Your task to perform on an android device: Open settings Image 0: 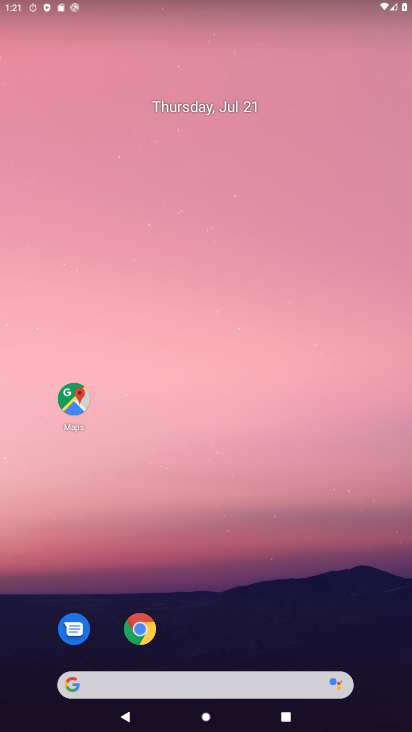
Step 0: drag from (77, 584) to (282, 47)
Your task to perform on an android device: Open settings Image 1: 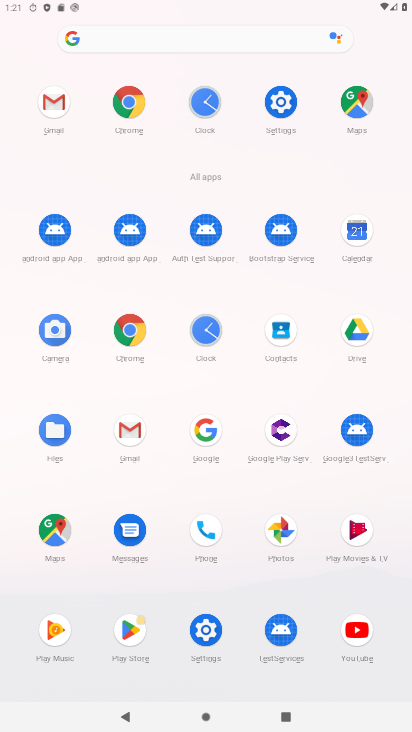
Step 1: click (203, 628)
Your task to perform on an android device: Open settings Image 2: 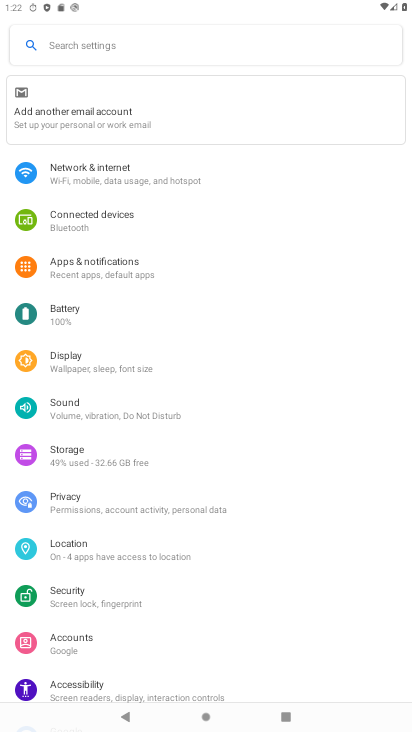
Step 2: click (263, 377)
Your task to perform on an android device: Open settings Image 3: 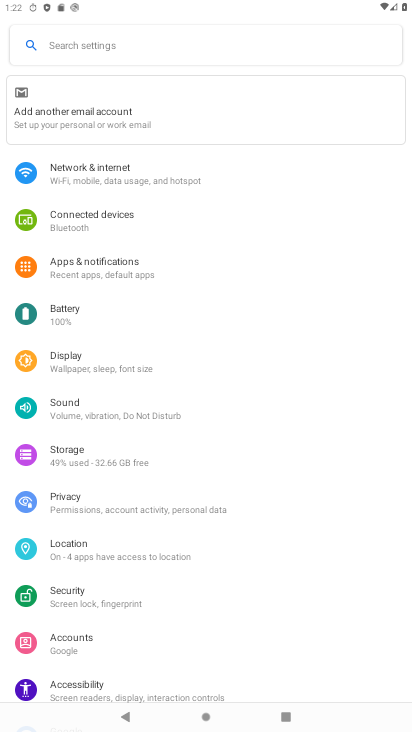
Step 3: task complete